Your task to perform on an android device: Open internet settings Image 0: 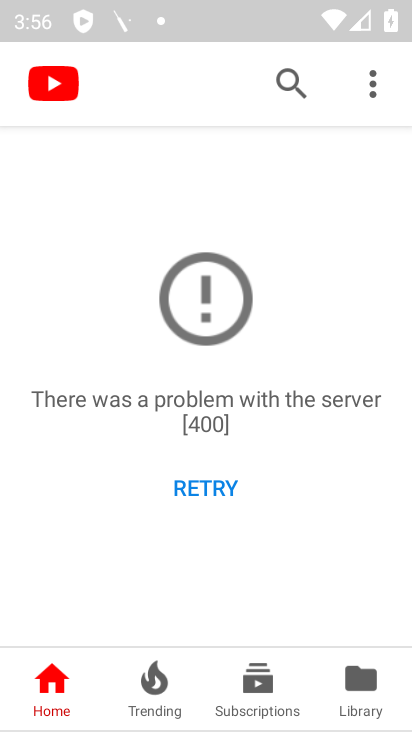
Step 0: press back button
Your task to perform on an android device: Open internet settings Image 1: 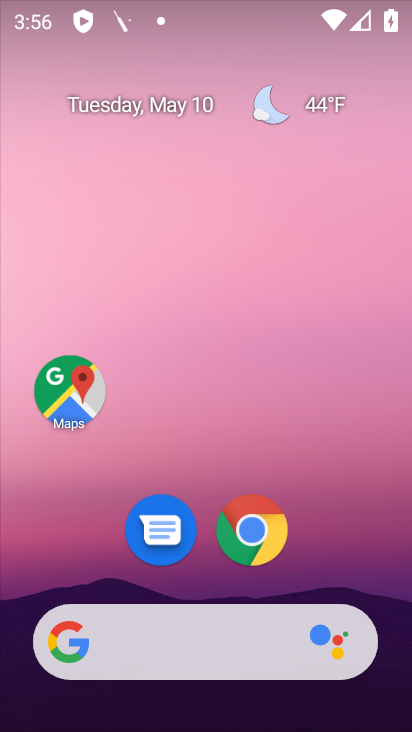
Step 1: drag from (228, 539) to (337, 25)
Your task to perform on an android device: Open internet settings Image 2: 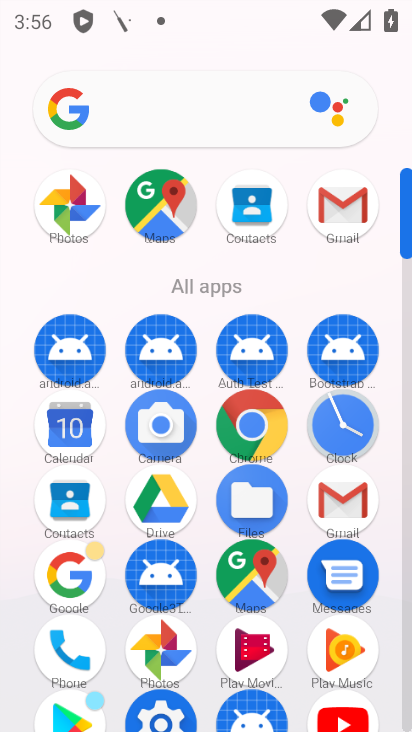
Step 2: click (148, 719)
Your task to perform on an android device: Open internet settings Image 3: 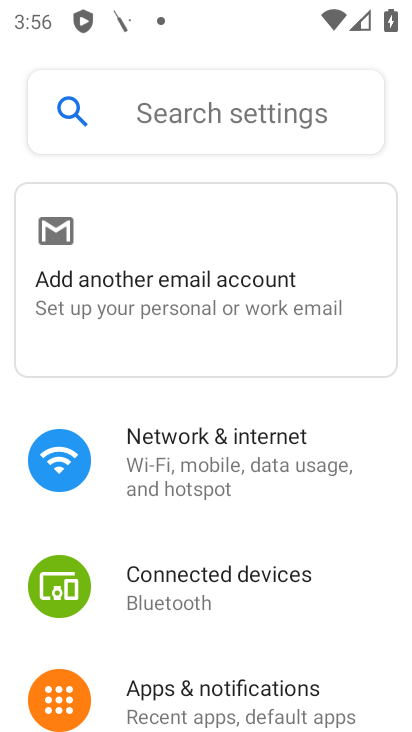
Step 3: click (207, 457)
Your task to perform on an android device: Open internet settings Image 4: 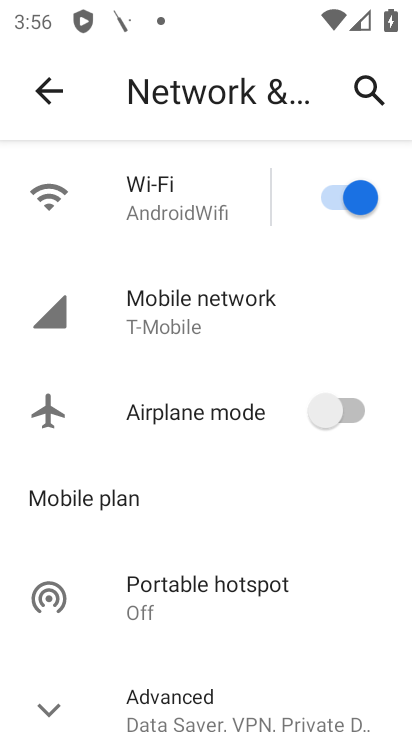
Step 4: task complete